Your task to perform on an android device: open app "Cash App" (install if not already installed) Image 0: 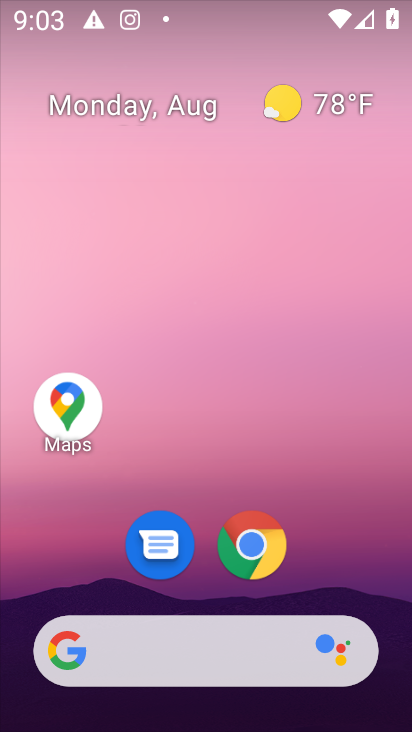
Step 0: press home button
Your task to perform on an android device: open app "Cash App" (install if not already installed) Image 1: 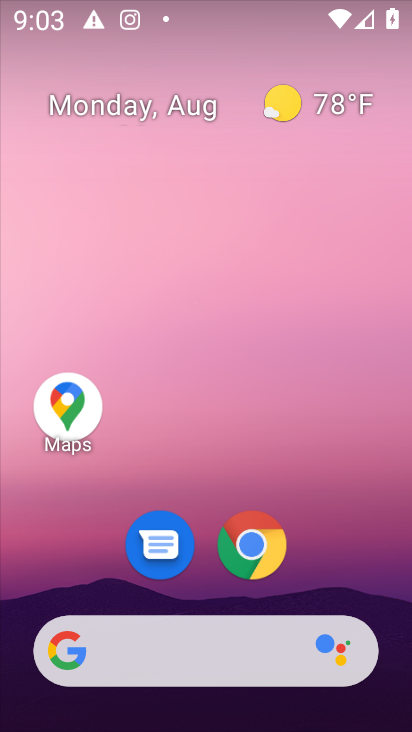
Step 1: drag from (357, 575) to (364, 73)
Your task to perform on an android device: open app "Cash App" (install if not already installed) Image 2: 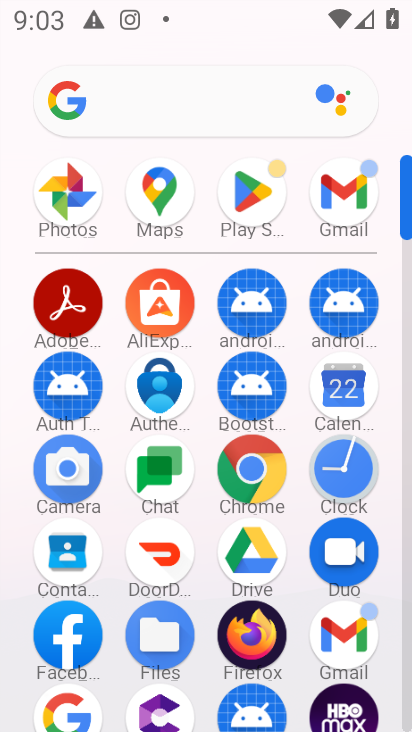
Step 2: click (251, 193)
Your task to perform on an android device: open app "Cash App" (install if not already installed) Image 3: 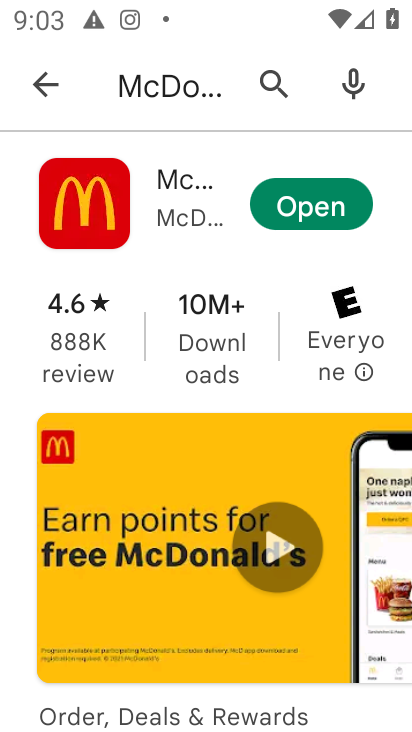
Step 3: press back button
Your task to perform on an android device: open app "Cash App" (install if not already installed) Image 4: 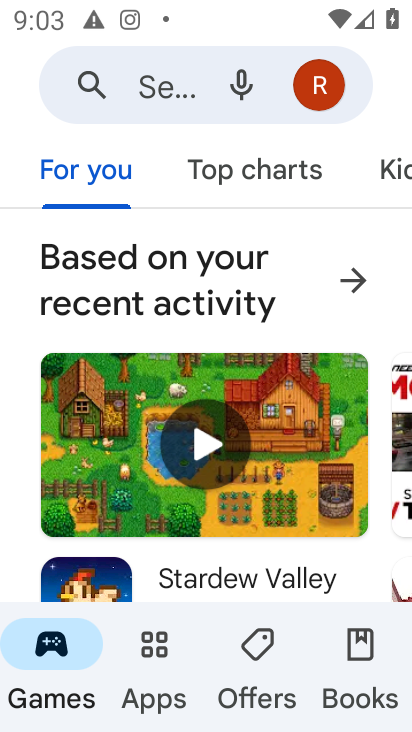
Step 4: click (163, 88)
Your task to perform on an android device: open app "Cash App" (install if not already installed) Image 5: 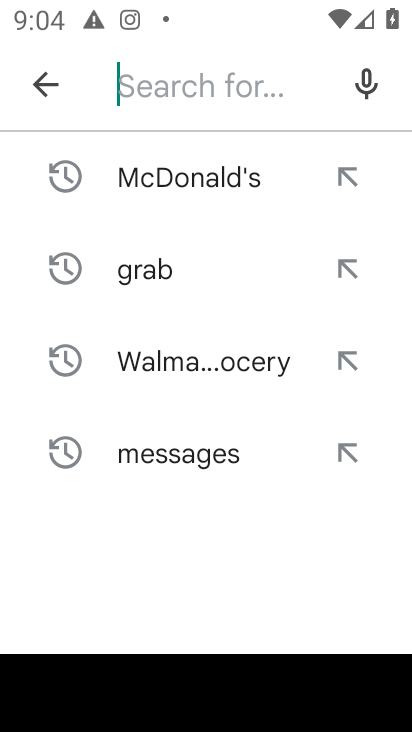
Step 5: click (133, 88)
Your task to perform on an android device: open app "Cash App" (install if not already installed) Image 6: 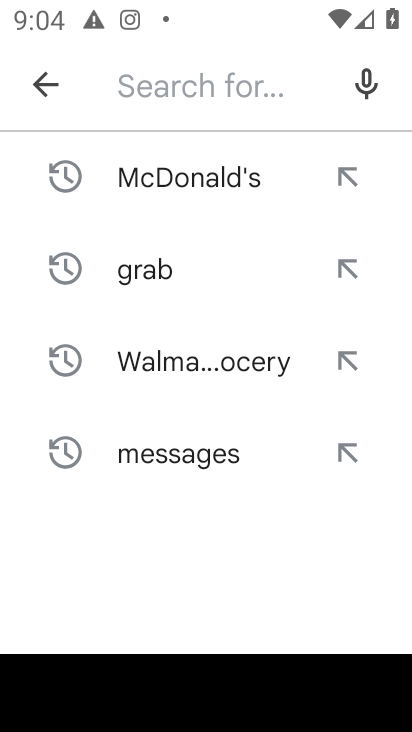
Step 6: press enter
Your task to perform on an android device: open app "Cash App" (install if not already installed) Image 7: 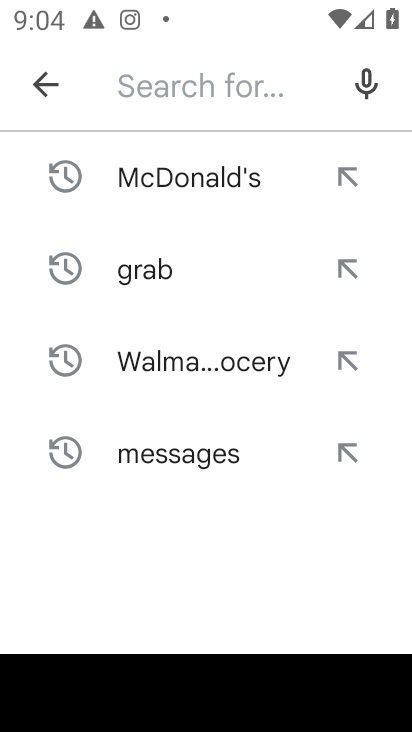
Step 7: type "Cash App"
Your task to perform on an android device: open app "Cash App" (install if not already installed) Image 8: 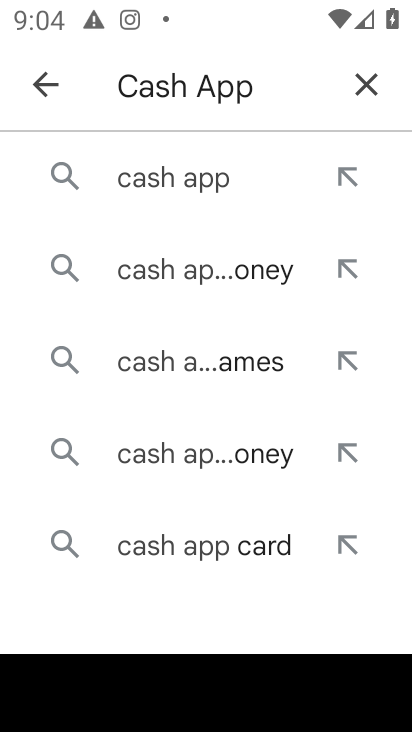
Step 8: click (209, 181)
Your task to perform on an android device: open app "Cash App" (install if not already installed) Image 9: 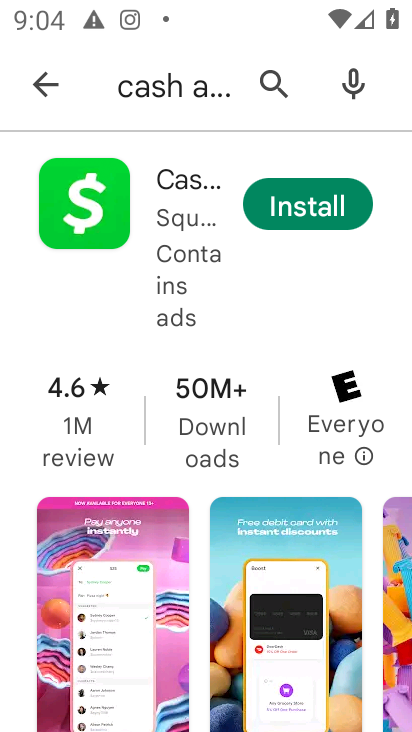
Step 9: click (310, 211)
Your task to perform on an android device: open app "Cash App" (install if not already installed) Image 10: 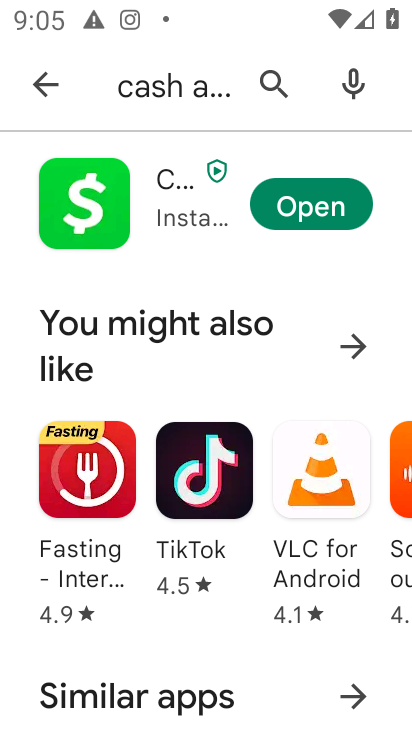
Step 10: click (363, 203)
Your task to perform on an android device: open app "Cash App" (install if not already installed) Image 11: 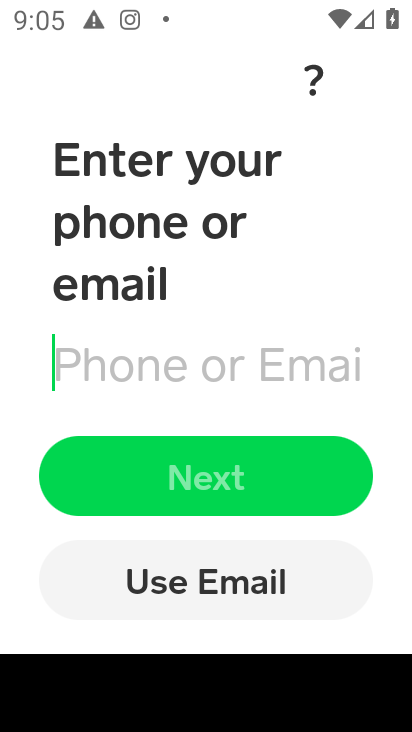
Step 11: task complete